Your task to perform on an android device: Open battery settings Image 0: 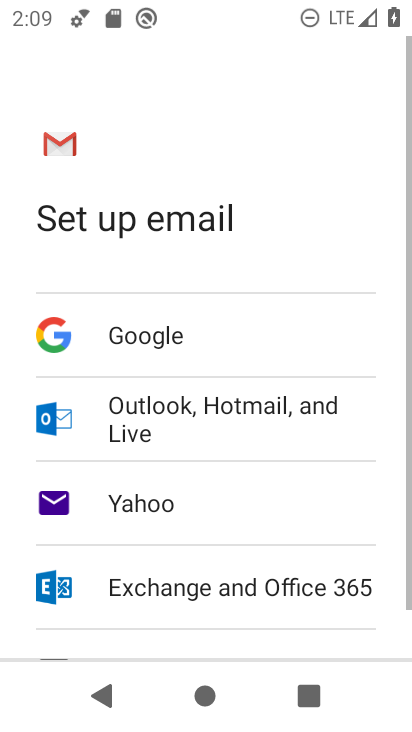
Step 0: press home button
Your task to perform on an android device: Open battery settings Image 1: 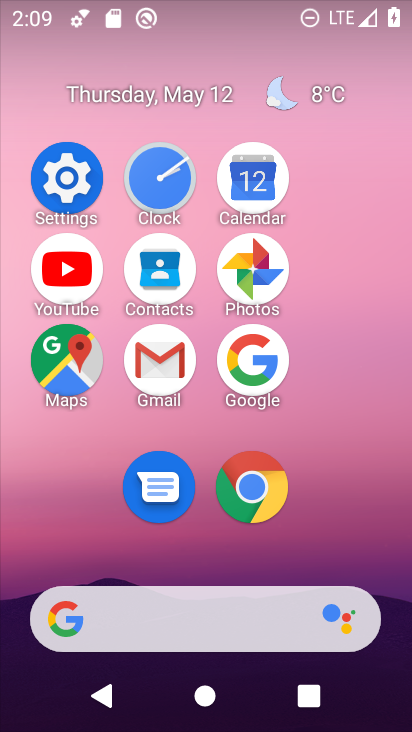
Step 1: click (87, 196)
Your task to perform on an android device: Open battery settings Image 2: 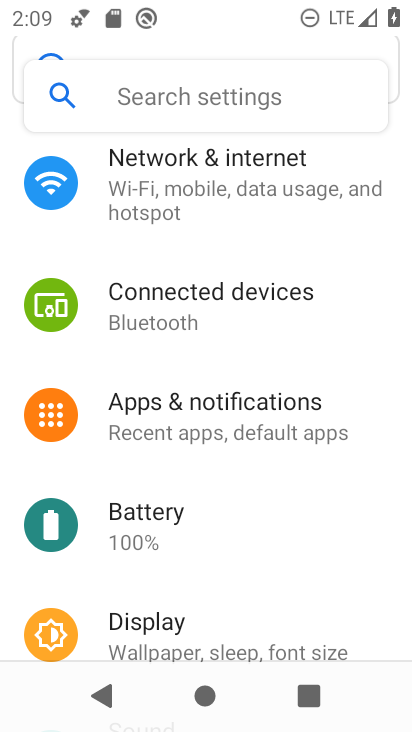
Step 2: click (191, 535)
Your task to perform on an android device: Open battery settings Image 3: 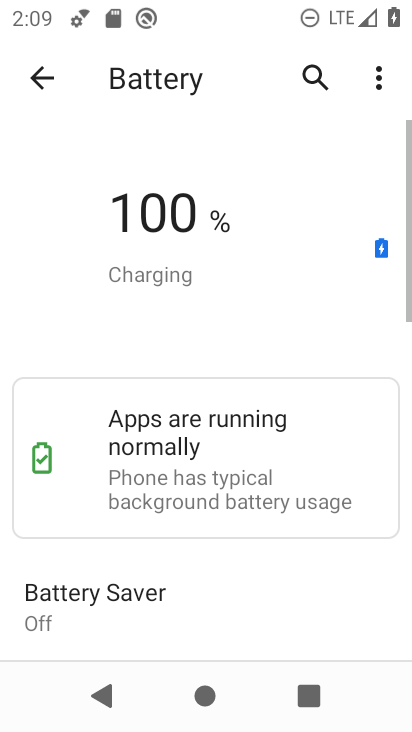
Step 3: task complete